Your task to perform on an android device: Open Google Image 0: 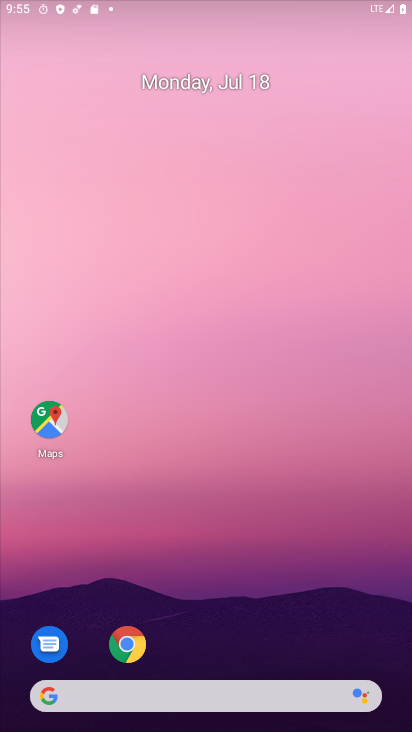
Step 0: drag from (190, 659) to (184, 16)
Your task to perform on an android device: Open Google Image 1: 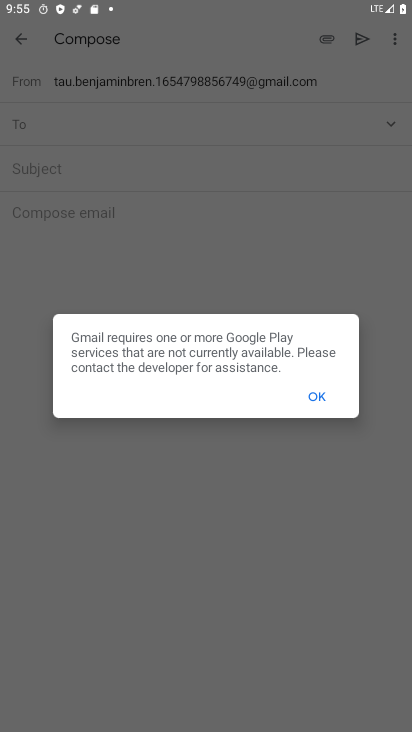
Step 1: press home button
Your task to perform on an android device: Open Google Image 2: 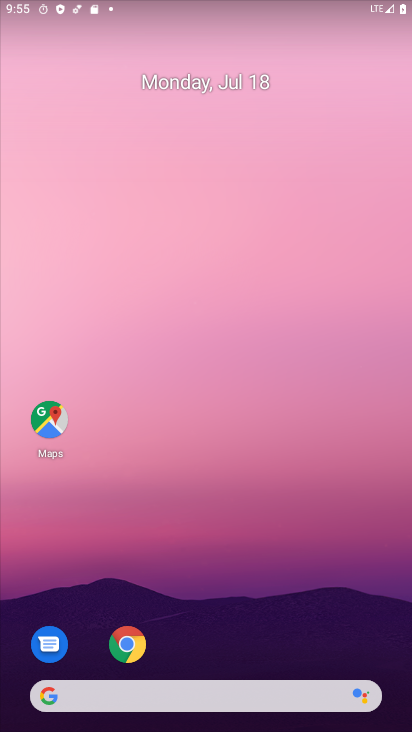
Step 2: drag from (230, 659) to (269, 70)
Your task to perform on an android device: Open Google Image 3: 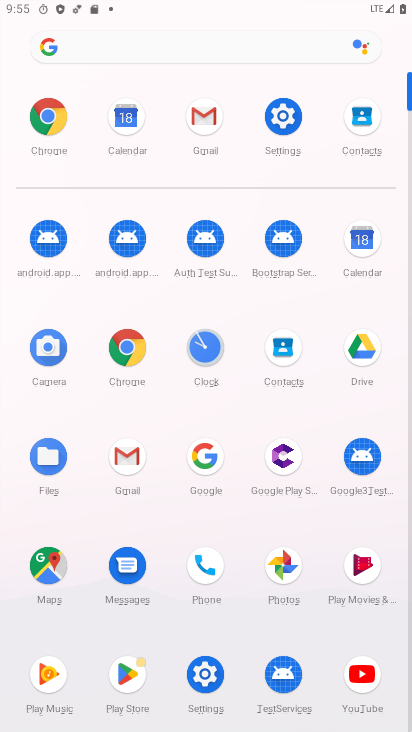
Step 3: click (199, 447)
Your task to perform on an android device: Open Google Image 4: 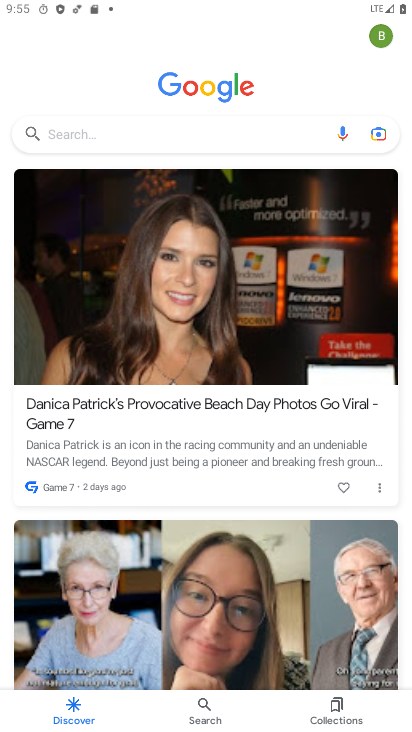
Step 4: drag from (180, 581) to (240, 596)
Your task to perform on an android device: Open Google Image 5: 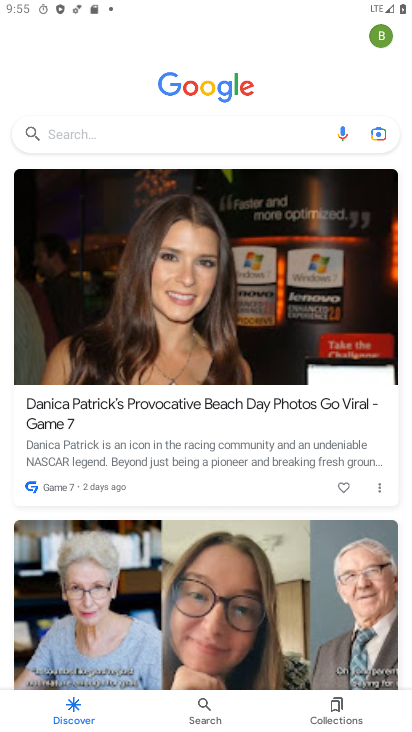
Step 5: click (208, 702)
Your task to perform on an android device: Open Google Image 6: 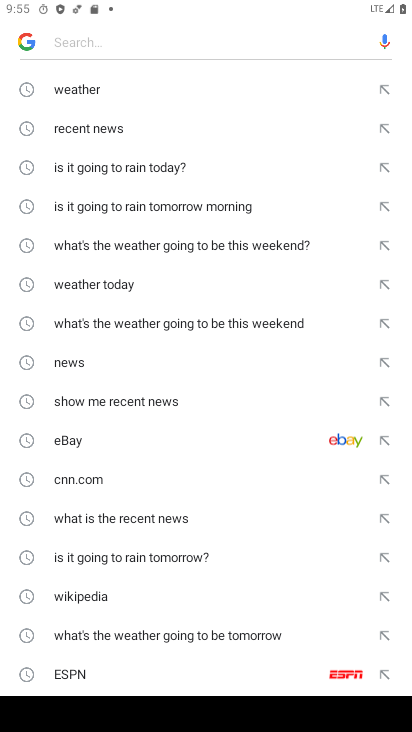
Step 6: press back button
Your task to perform on an android device: Open Google Image 7: 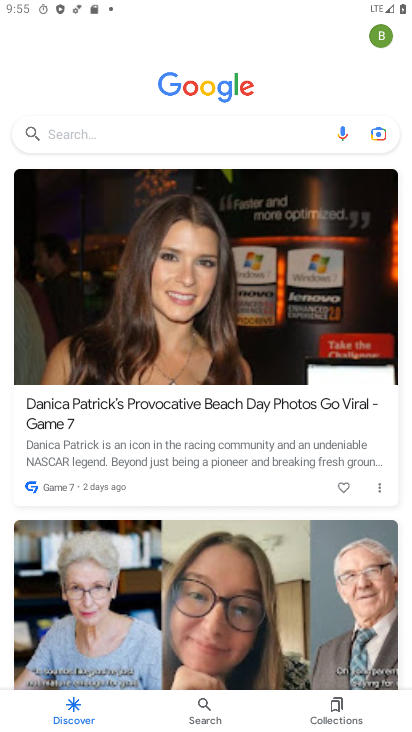
Step 7: click (335, 706)
Your task to perform on an android device: Open Google Image 8: 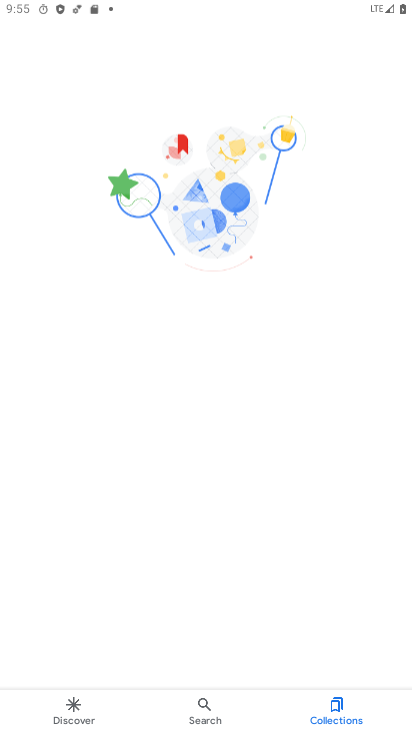
Step 8: task complete